Your task to perform on an android device: check google app version Image 0: 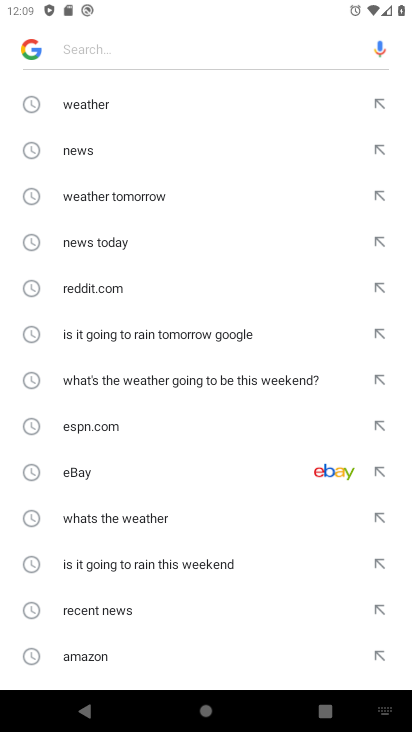
Step 0: press back button
Your task to perform on an android device: check google app version Image 1: 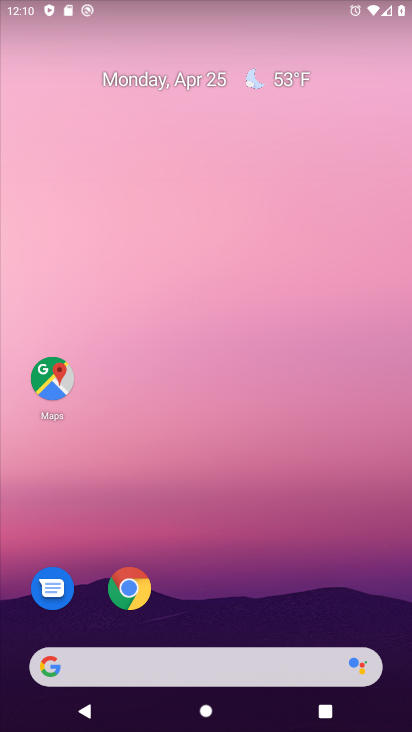
Step 1: drag from (216, 622) to (228, 491)
Your task to perform on an android device: check google app version Image 2: 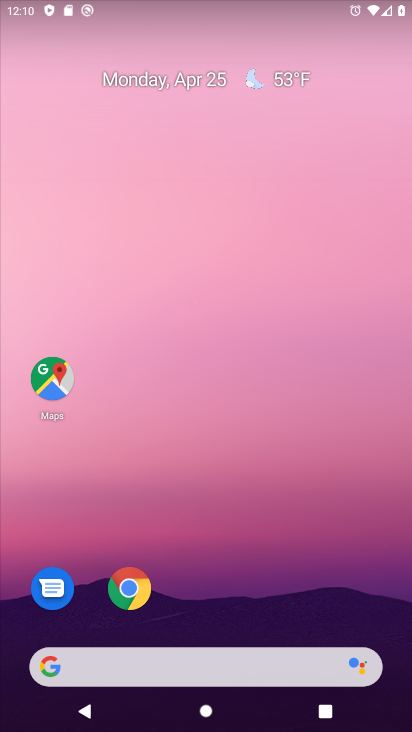
Step 2: drag from (255, 604) to (265, 64)
Your task to perform on an android device: check google app version Image 3: 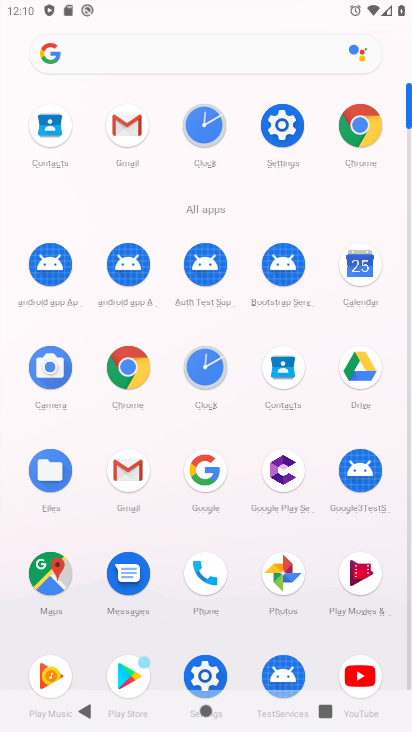
Step 3: click (346, 141)
Your task to perform on an android device: check google app version Image 4: 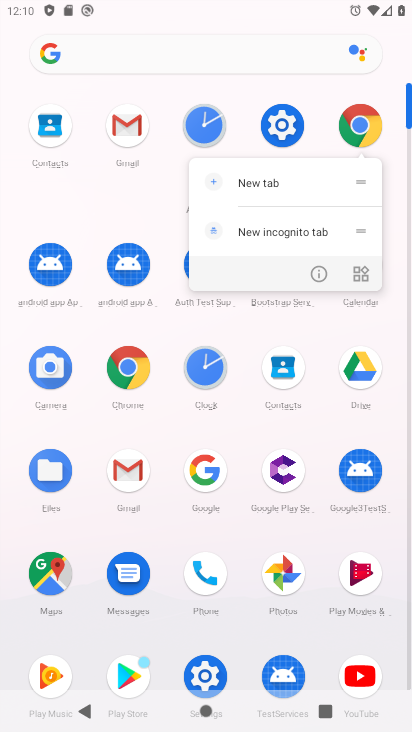
Step 4: click (319, 271)
Your task to perform on an android device: check google app version Image 5: 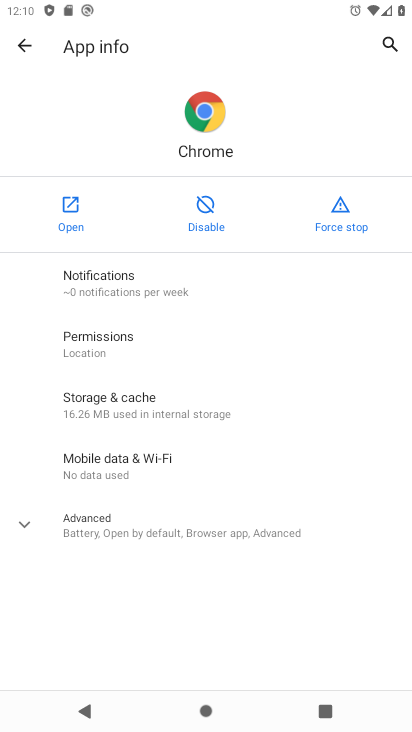
Step 5: click (179, 528)
Your task to perform on an android device: check google app version Image 6: 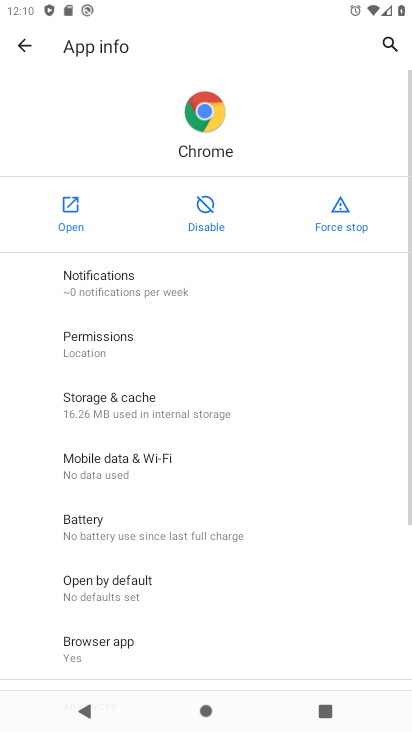
Step 6: task complete